Your task to perform on an android device: turn off location Image 0: 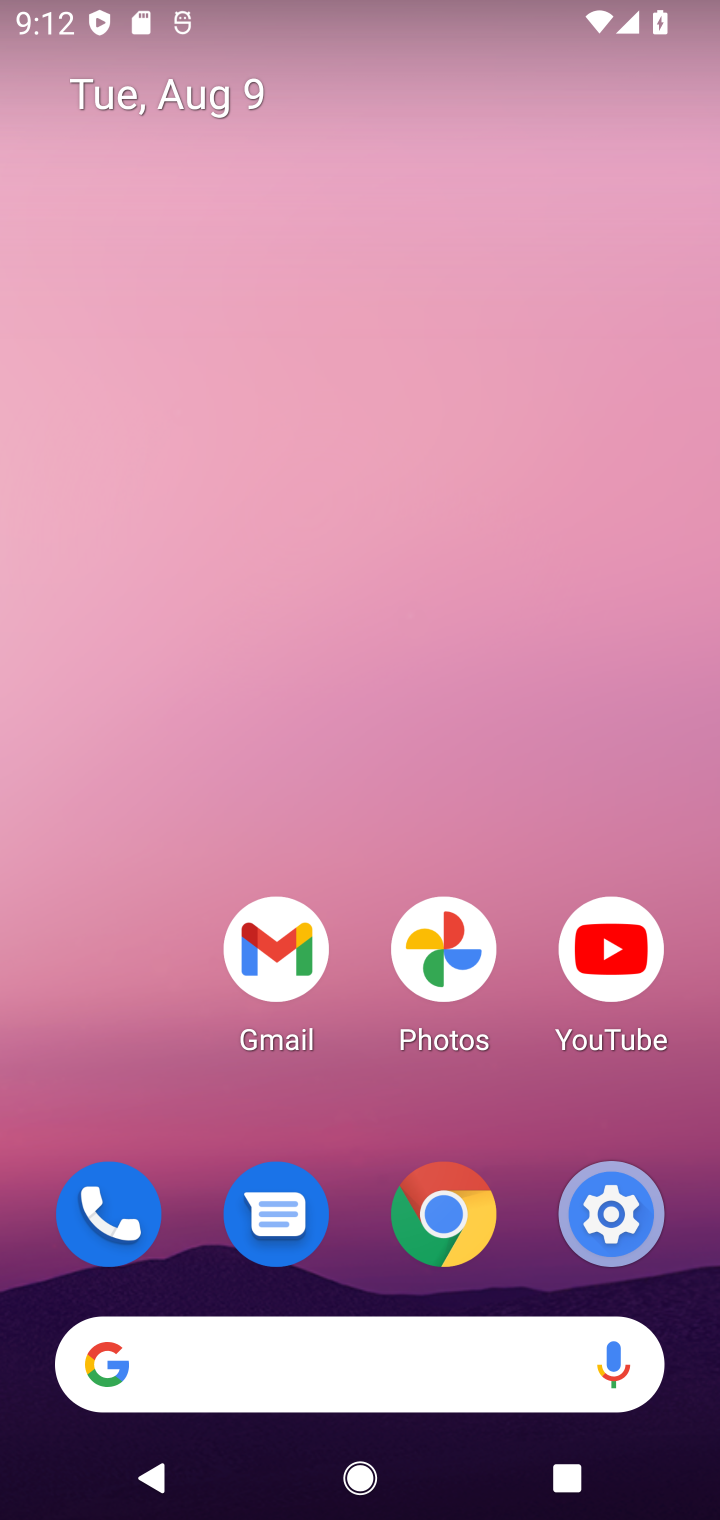
Step 0: click (626, 1210)
Your task to perform on an android device: turn off location Image 1: 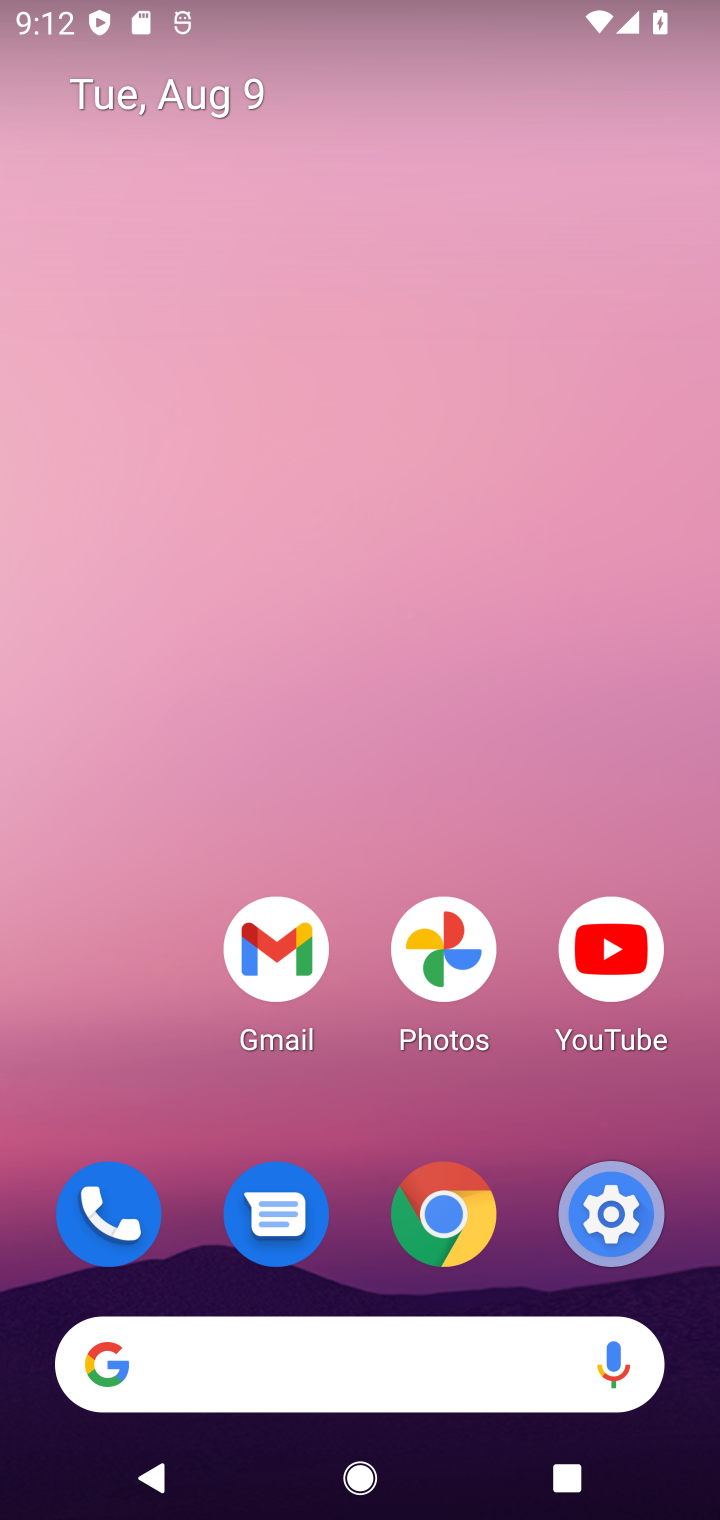
Step 1: click (640, 1241)
Your task to perform on an android device: turn off location Image 2: 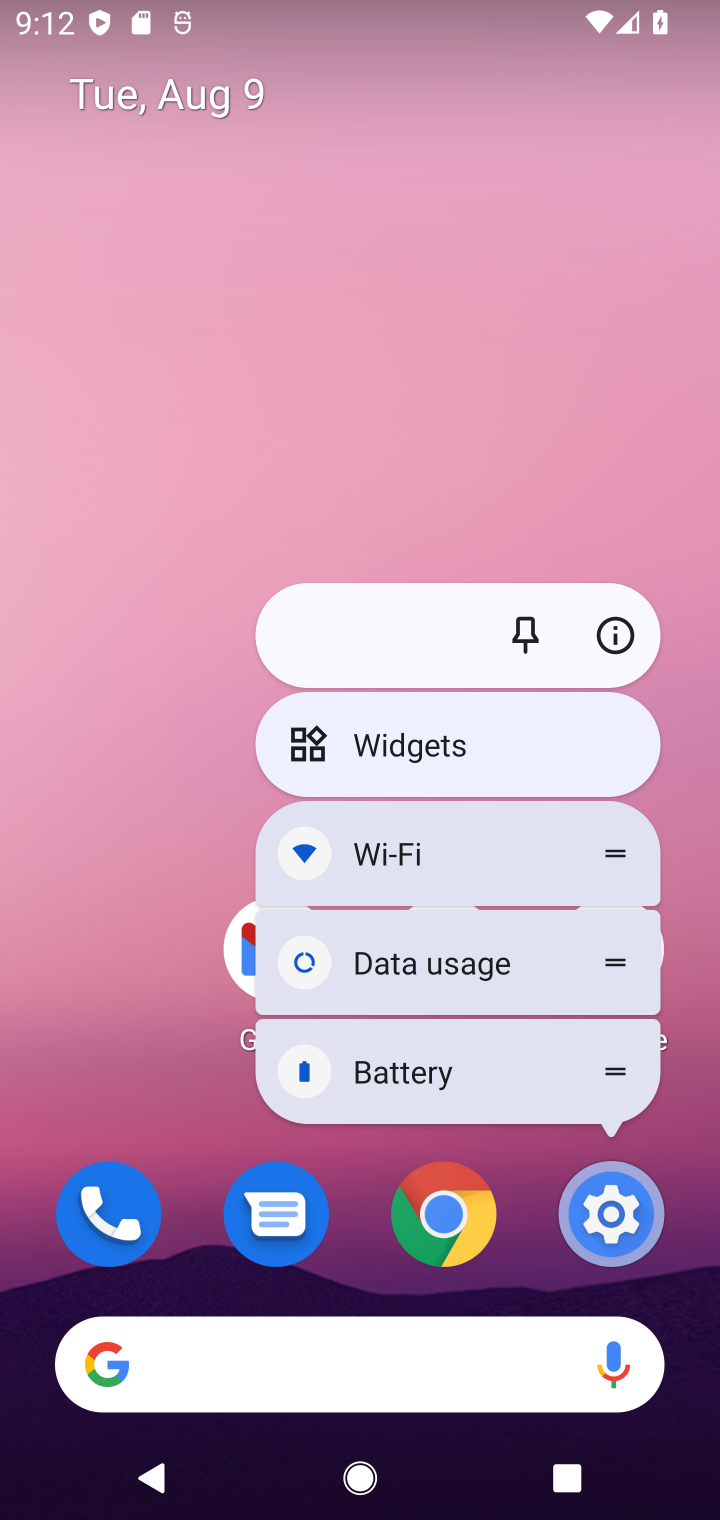
Step 2: task complete